Your task to perform on an android device: Go to Android settings Image 0: 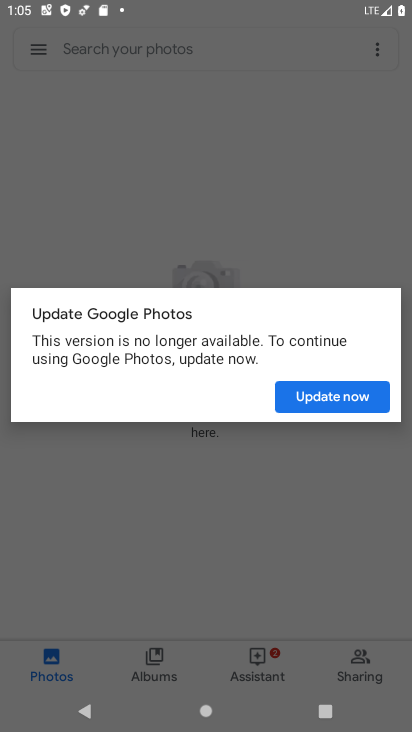
Step 0: press home button
Your task to perform on an android device: Go to Android settings Image 1: 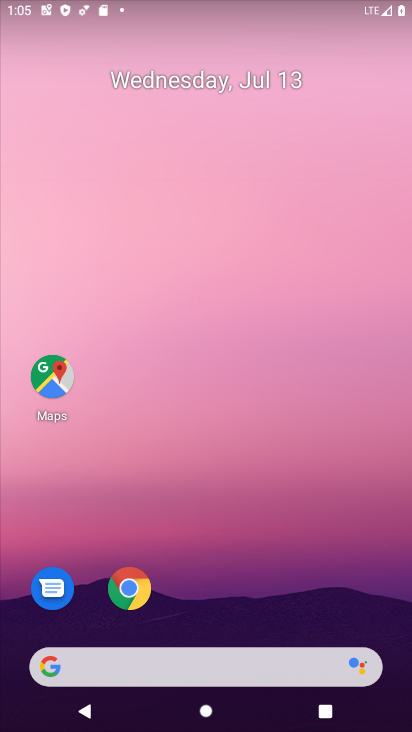
Step 1: drag from (402, 698) to (322, 139)
Your task to perform on an android device: Go to Android settings Image 2: 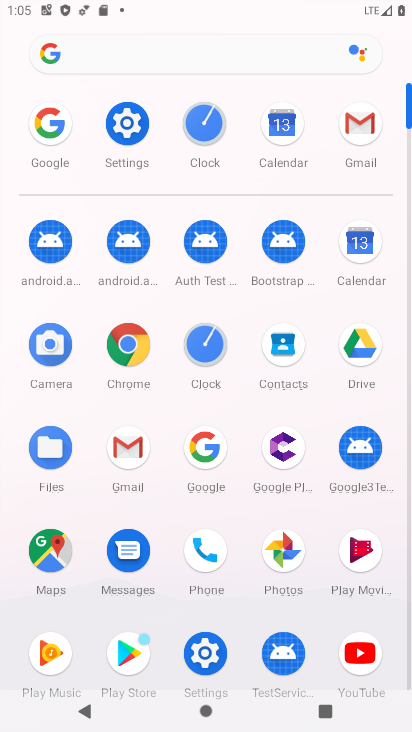
Step 2: click (183, 634)
Your task to perform on an android device: Go to Android settings Image 3: 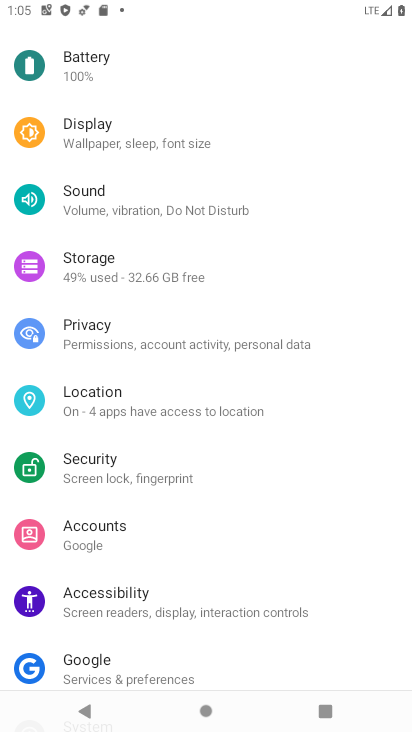
Step 3: task complete